Your task to perform on an android device: find photos in the google photos app Image 0: 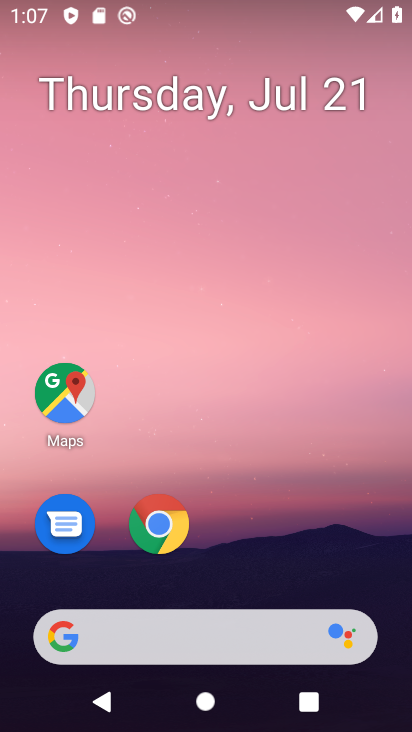
Step 0: drag from (293, 532) to (300, 108)
Your task to perform on an android device: find photos in the google photos app Image 1: 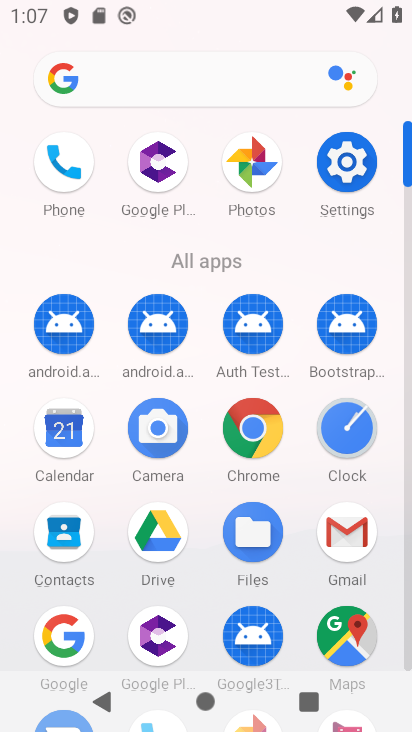
Step 1: click (261, 169)
Your task to perform on an android device: find photos in the google photos app Image 2: 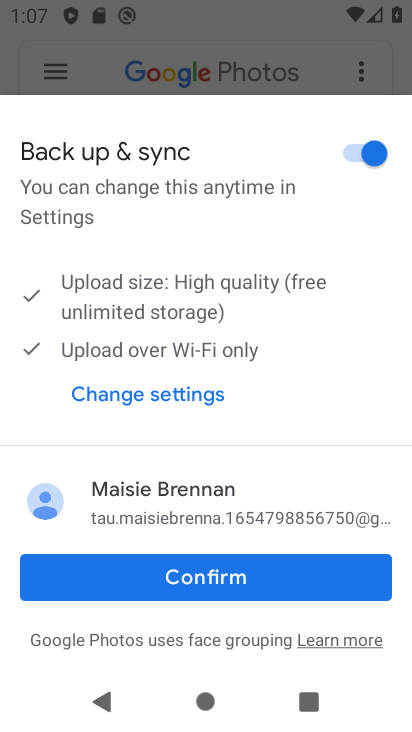
Step 2: click (256, 580)
Your task to perform on an android device: find photos in the google photos app Image 3: 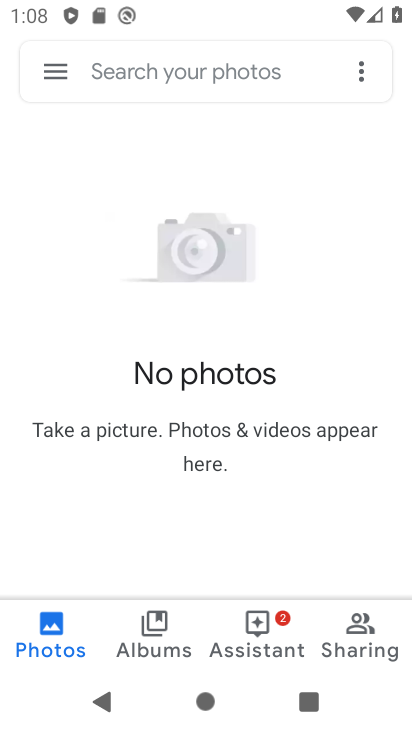
Step 3: task complete